Your task to perform on an android device: Search for sushi restaurants on Maps Image 0: 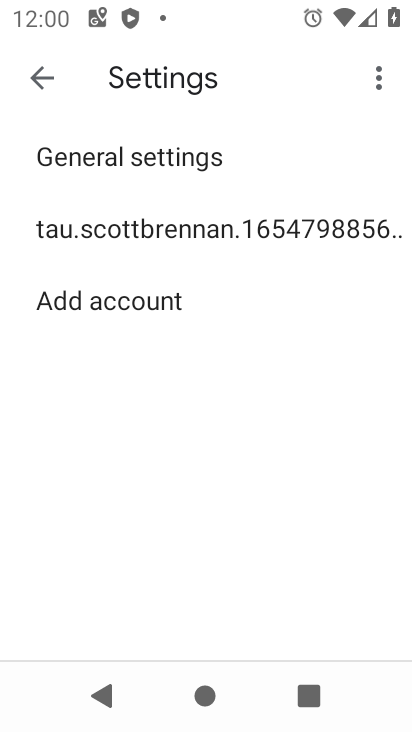
Step 0: press home button
Your task to perform on an android device: Search for sushi restaurants on Maps Image 1: 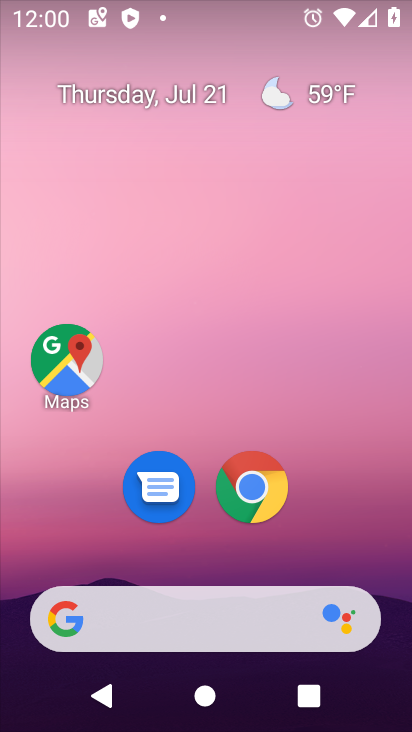
Step 1: drag from (360, 519) to (368, 115)
Your task to perform on an android device: Search for sushi restaurants on Maps Image 2: 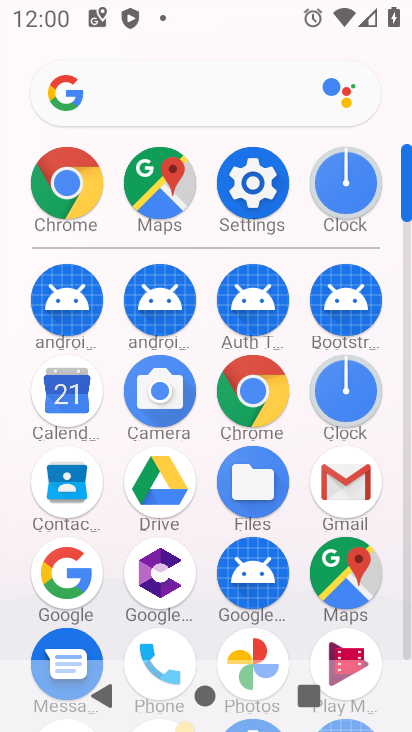
Step 2: click (358, 572)
Your task to perform on an android device: Search for sushi restaurants on Maps Image 3: 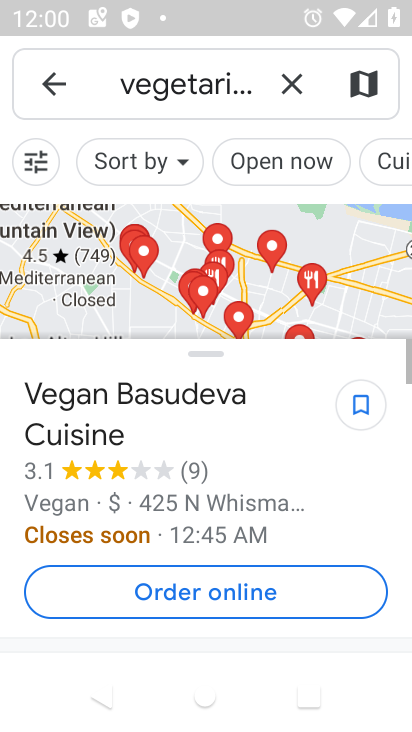
Step 3: press back button
Your task to perform on an android device: Search for sushi restaurants on Maps Image 4: 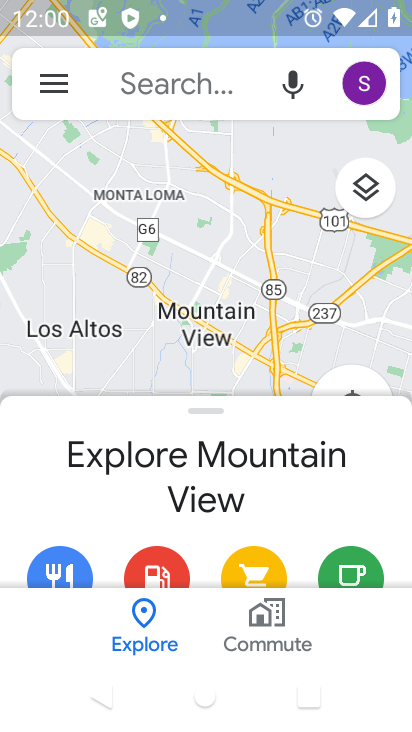
Step 4: click (147, 83)
Your task to perform on an android device: Search for sushi restaurants on Maps Image 5: 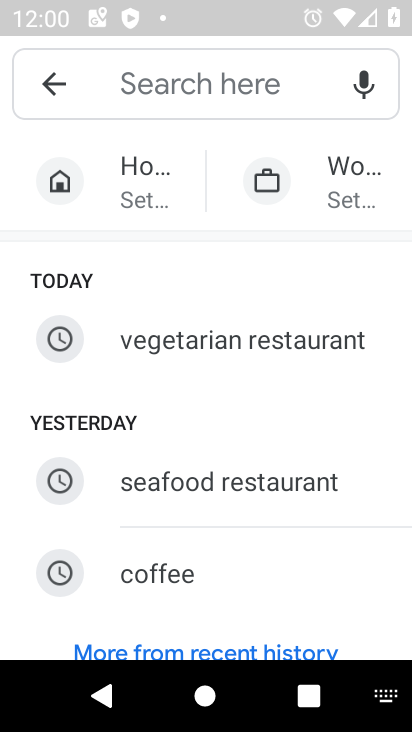
Step 5: type "sushi restaurants"
Your task to perform on an android device: Search for sushi restaurants on Maps Image 6: 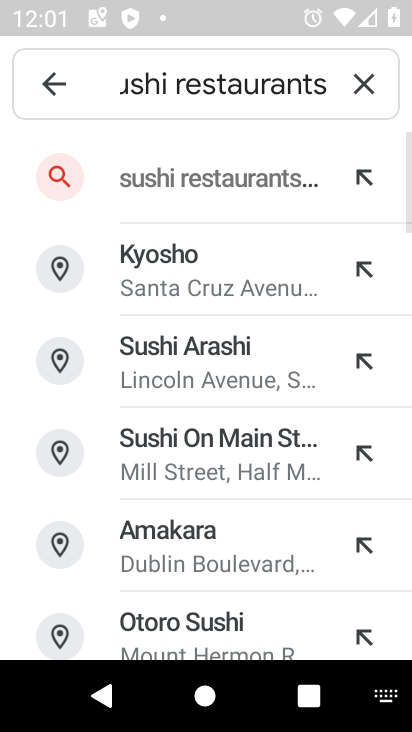
Step 6: click (184, 195)
Your task to perform on an android device: Search for sushi restaurants on Maps Image 7: 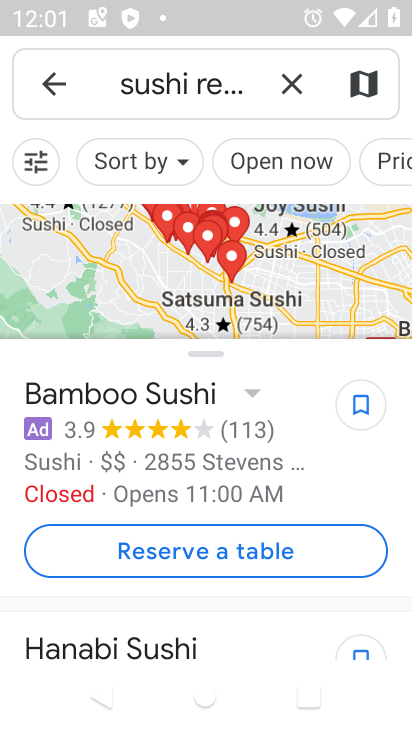
Step 7: task complete